Your task to perform on an android device: See recent photos Image 0: 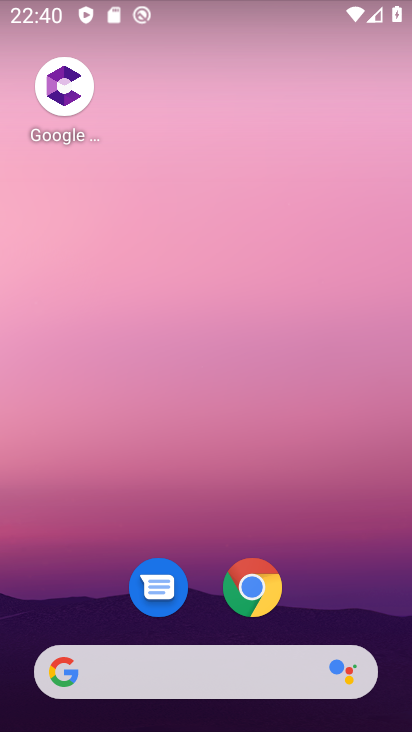
Step 0: drag from (224, 628) to (176, 88)
Your task to perform on an android device: See recent photos Image 1: 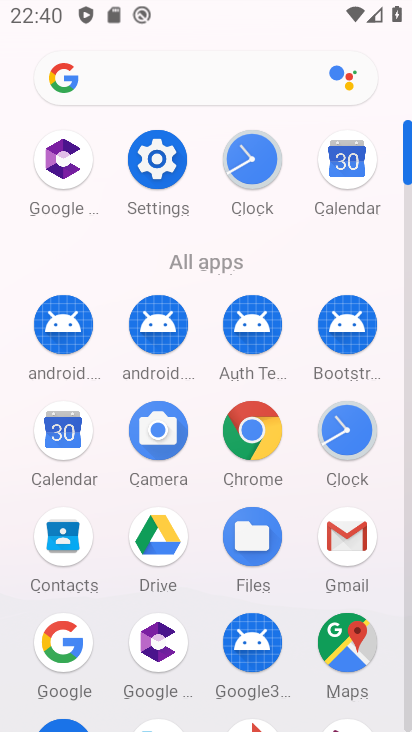
Step 1: drag from (204, 587) to (184, 170)
Your task to perform on an android device: See recent photos Image 2: 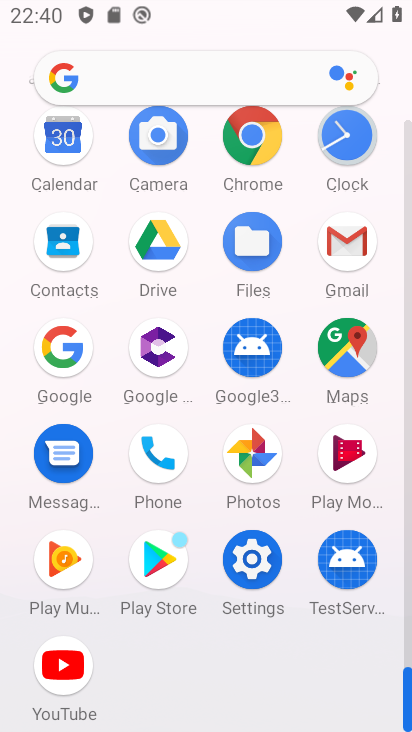
Step 2: click (239, 470)
Your task to perform on an android device: See recent photos Image 3: 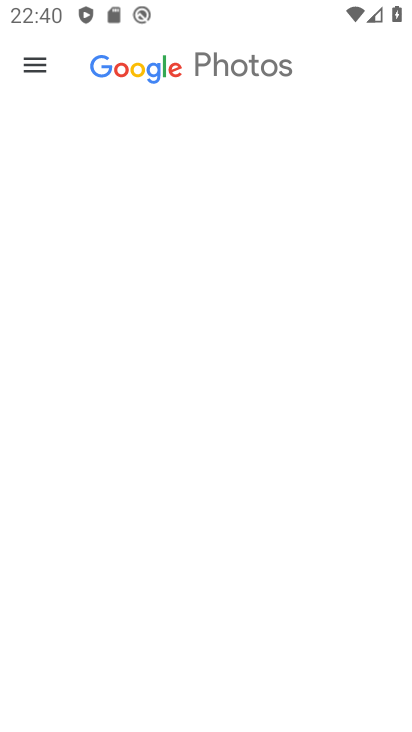
Step 3: task complete